Your task to perform on an android device: Go to notification settings Image 0: 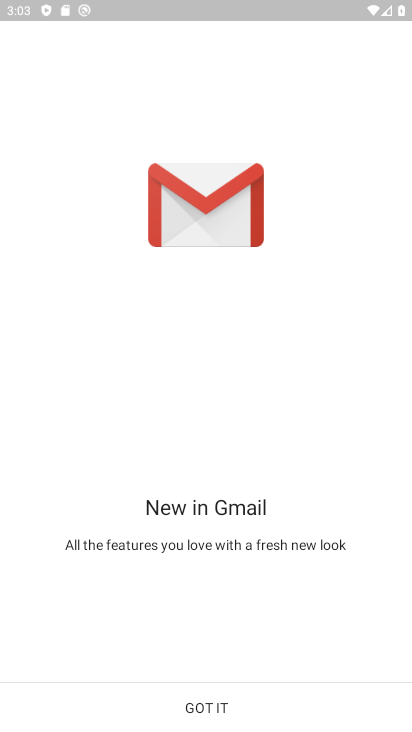
Step 0: click (221, 698)
Your task to perform on an android device: Go to notification settings Image 1: 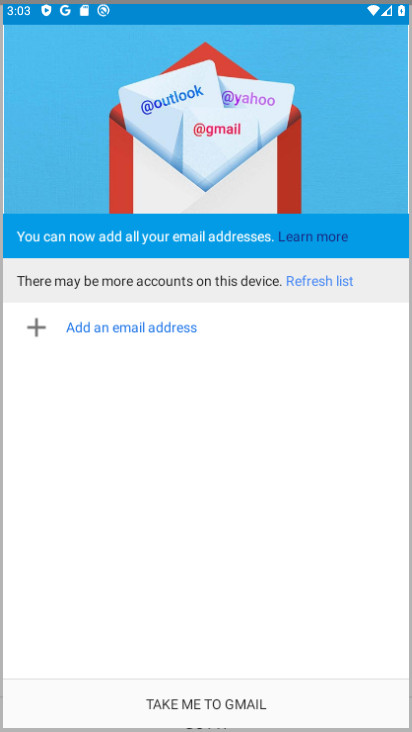
Step 1: click (192, 704)
Your task to perform on an android device: Go to notification settings Image 2: 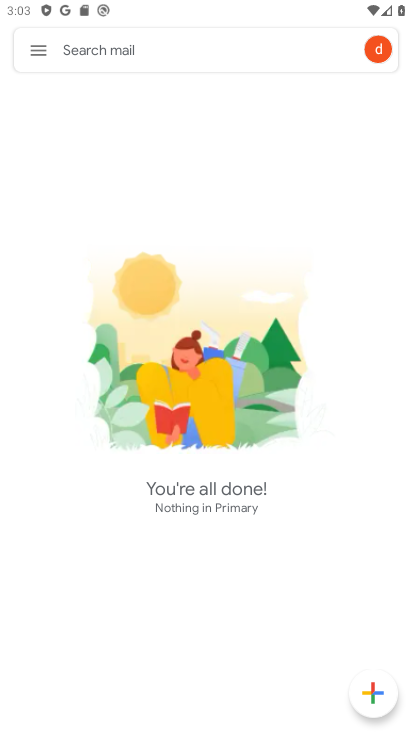
Step 2: click (32, 56)
Your task to perform on an android device: Go to notification settings Image 3: 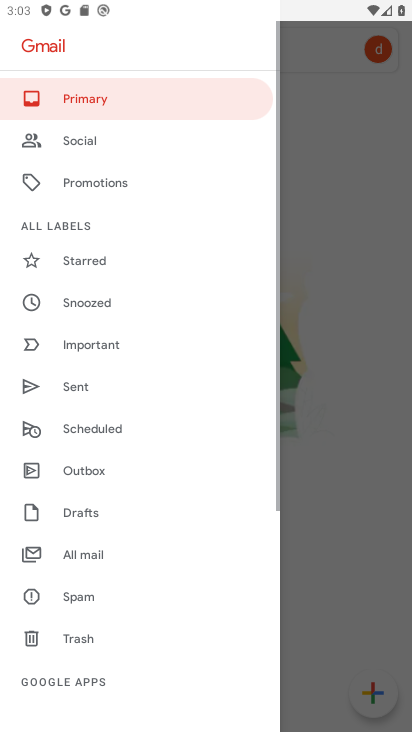
Step 3: press back button
Your task to perform on an android device: Go to notification settings Image 4: 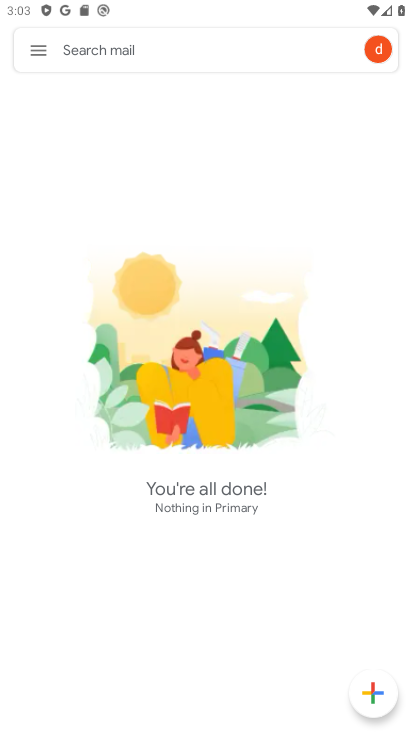
Step 4: press back button
Your task to perform on an android device: Go to notification settings Image 5: 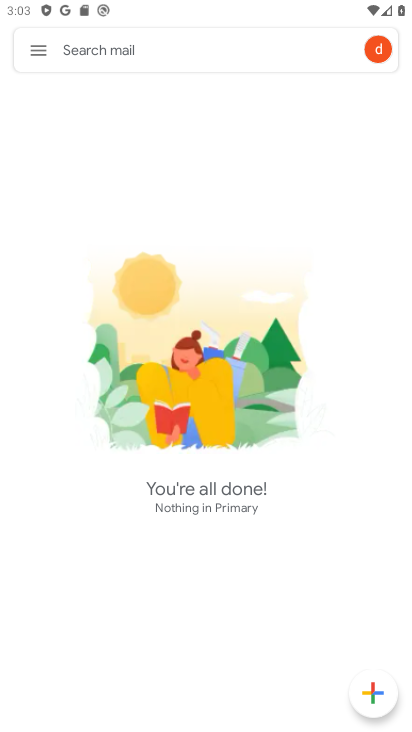
Step 5: press home button
Your task to perform on an android device: Go to notification settings Image 6: 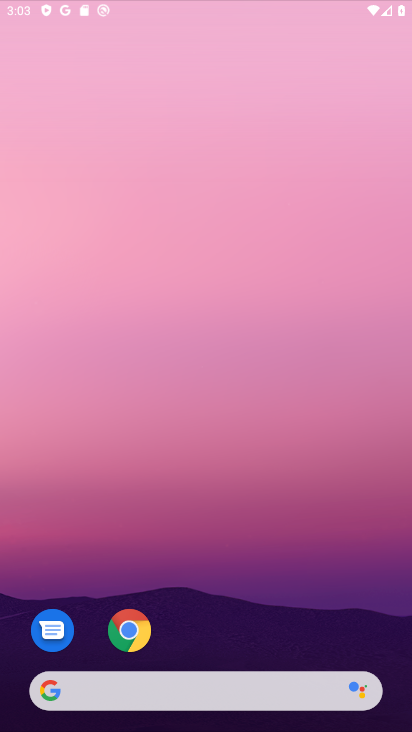
Step 6: press back button
Your task to perform on an android device: Go to notification settings Image 7: 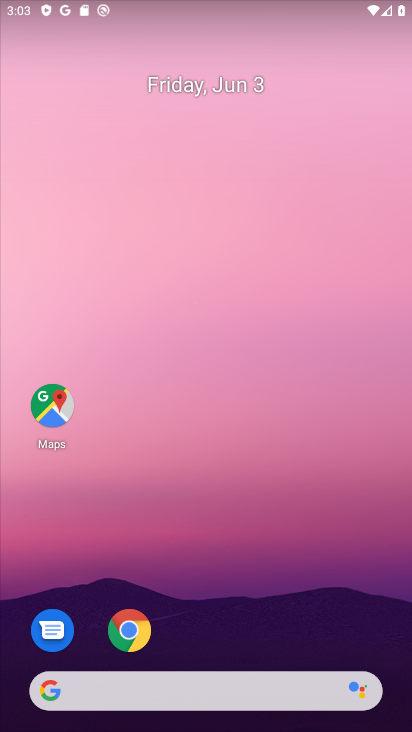
Step 7: drag from (248, 683) to (110, 9)
Your task to perform on an android device: Go to notification settings Image 8: 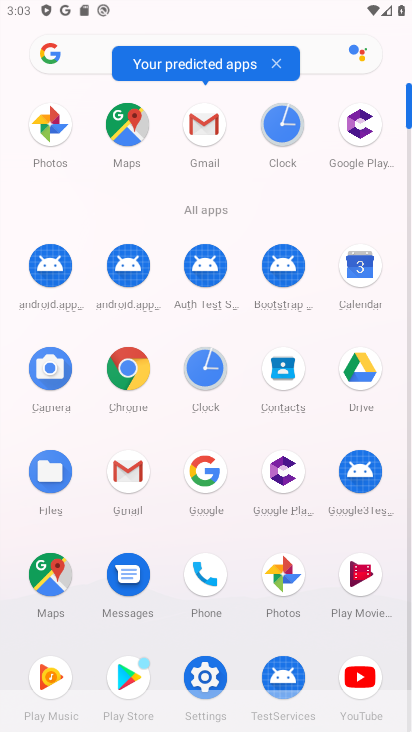
Step 8: click (205, 664)
Your task to perform on an android device: Go to notification settings Image 9: 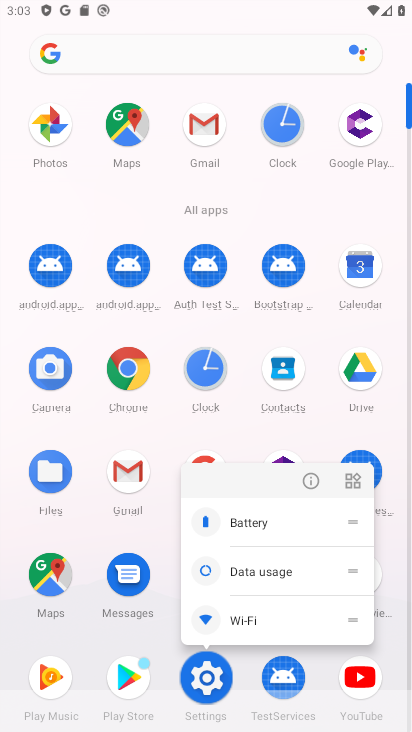
Step 9: click (205, 664)
Your task to perform on an android device: Go to notification settings Image 10: 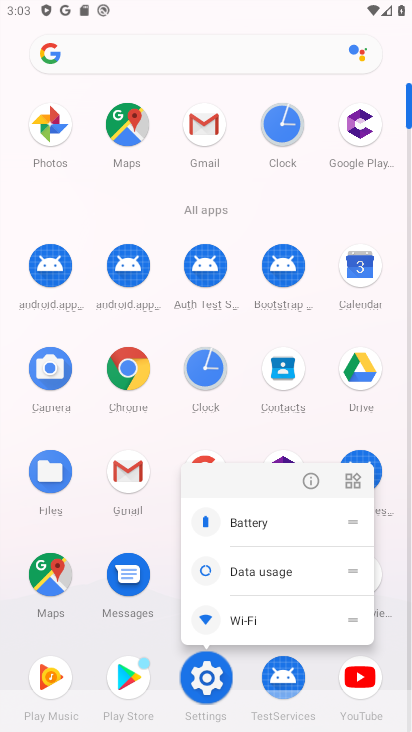
Step 10: click (206, 666)
Your task to perform on an android device: Go to notification settings Image 11: 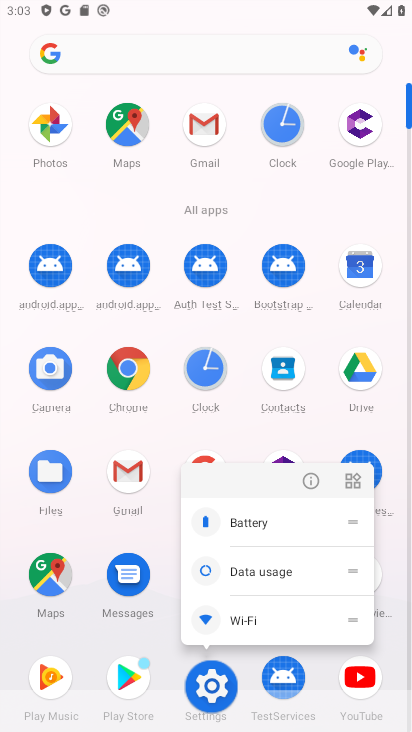
Step 11: click (211, 673)
Your task to perform on an android device: Go to notification settings Image 12: 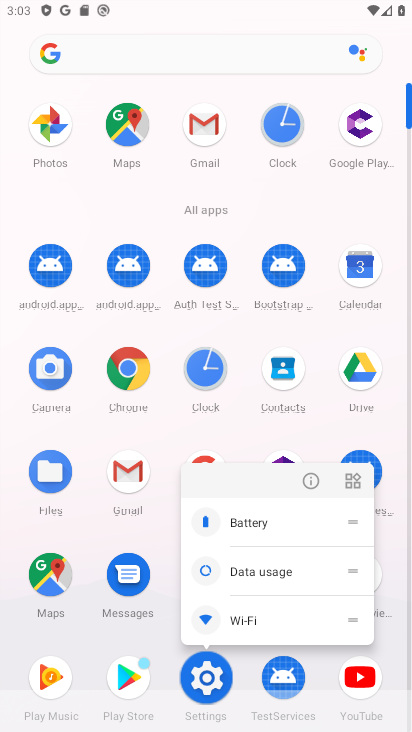
Step 12: click (203, 672)
Your task to perform on an android device: Go to notification settings Image 13: 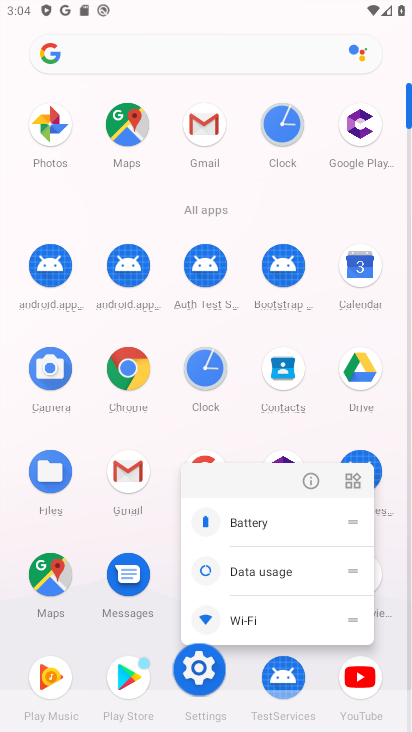
Step 13: click (205, 666)
Your task to perform on an android device: Go to notification settings Image 14: 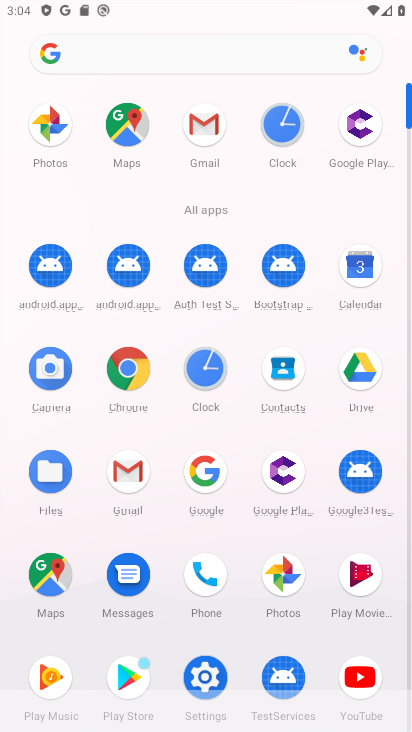
Step 14: click (202, 658)
Your task to perform on an android device: Go to notification settings Image 15: 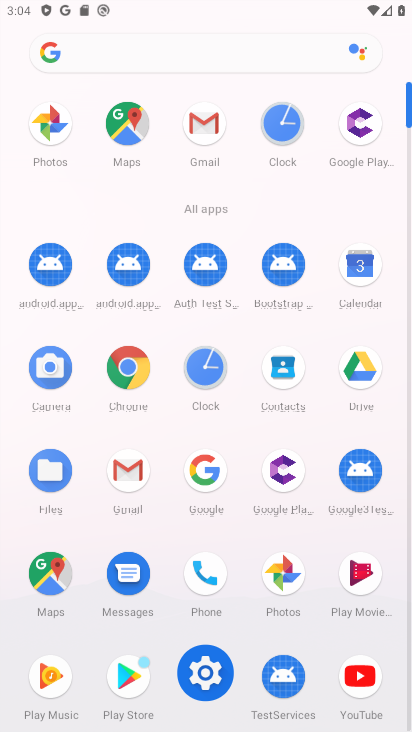
Step 15: click (203, 671)
Your task to perform on an android device: Go to notification settings Image 16: 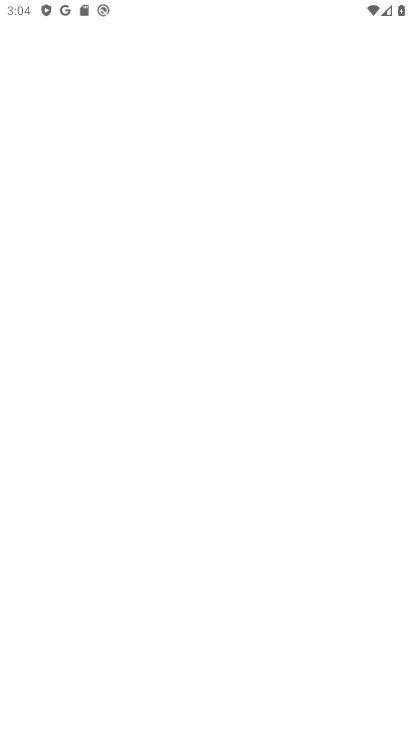
Step 16: click (207, 673)
Your task to perform on an android device: Go to notification settings Image 17: 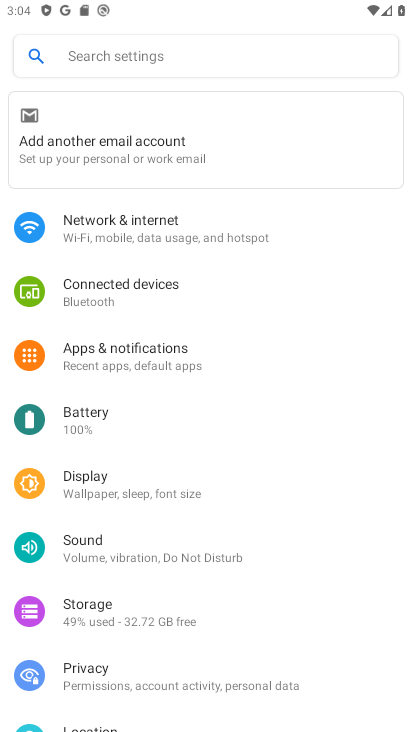
Step 17: click (119, 347)
Your task to perform on an android device: Go to notification settings Image 18: 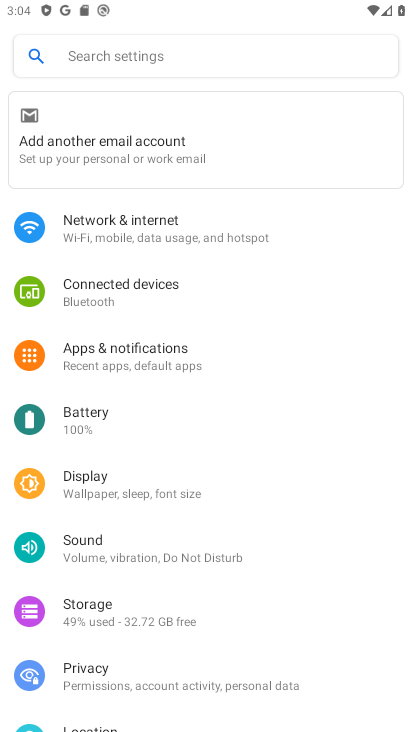
Step 18: click (119, 348)
Your task to perform on an android device: Go to notification settings Image 19: 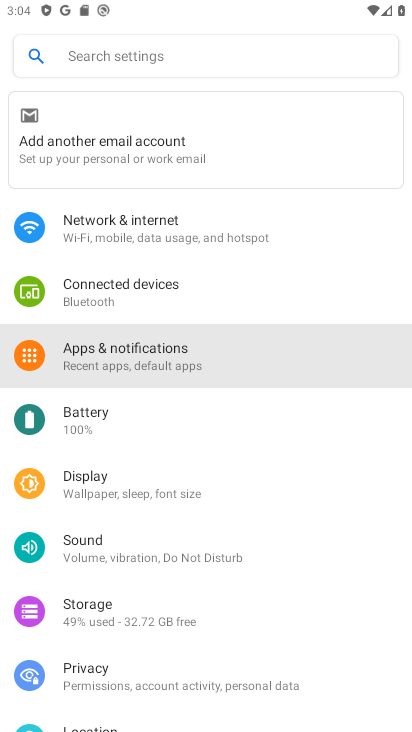
Step 19: click (119, 358)
Your task to perform on an android device: Go to notification settings Image 20: 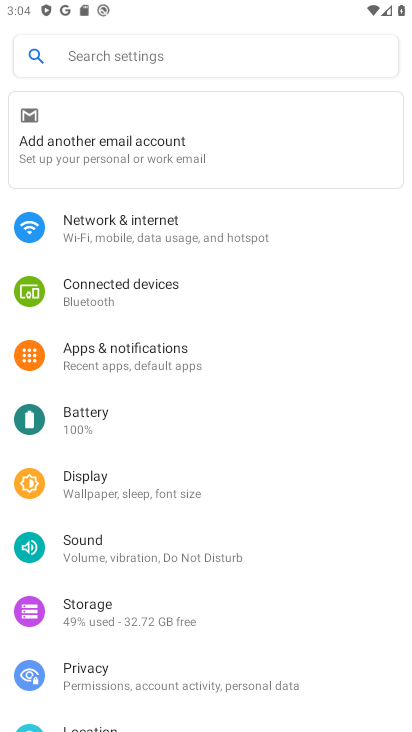
Step 20: click (119, 358)
Your task to perform on an android device: Go to notification settings Image 21: 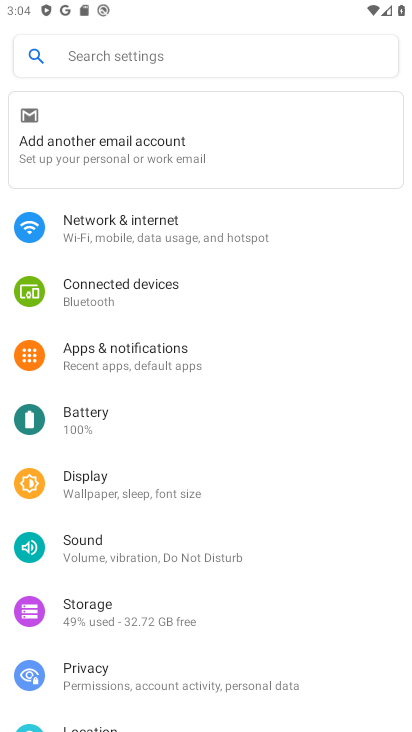
Step 21: click (119, 363)
Your task to perform on an android device: Go to notification settings Image 22: 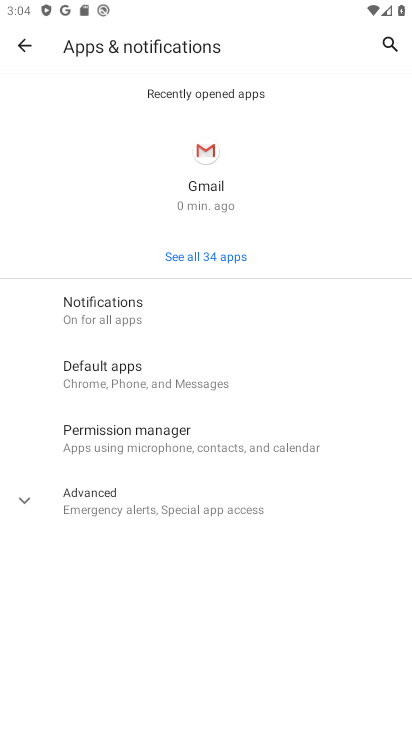
Step 22: click (107, 311)
Your task to perform on an android device: Go to notification settings Image 23: 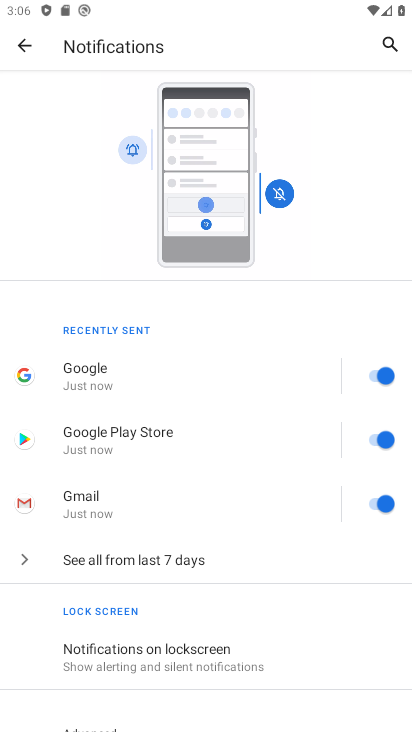
Step 23: press back button
Your task to perform on an android device: Go to notification settings Image 24: 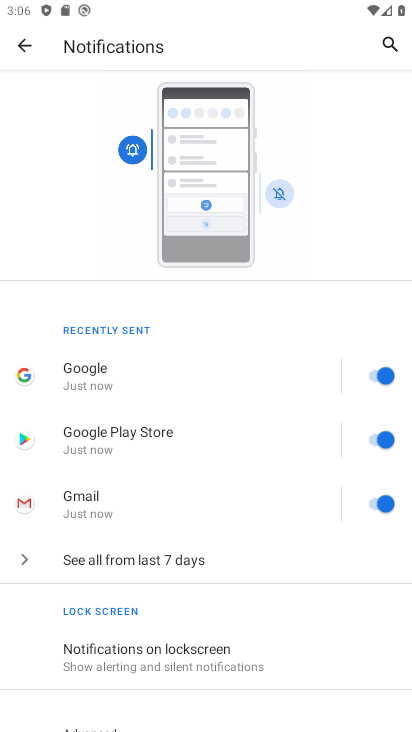
Step 24: press back button
Your task to perform on an android device: Go to notification settings Image 25: 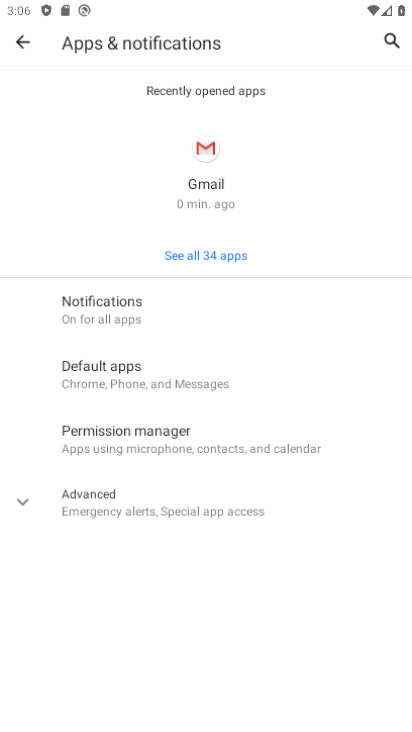
Step 25: press back button
Your task to perform on an android device: Go to notification settings Image 26: 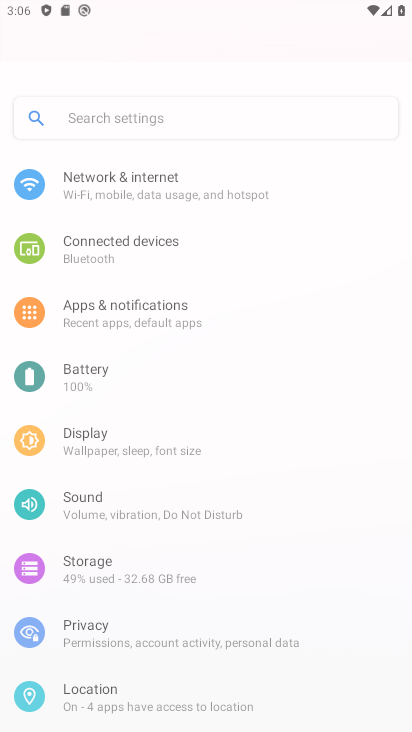
Step 26: click (21, 46)
Your task to perform on an android device: Go to notification settings Image 27: 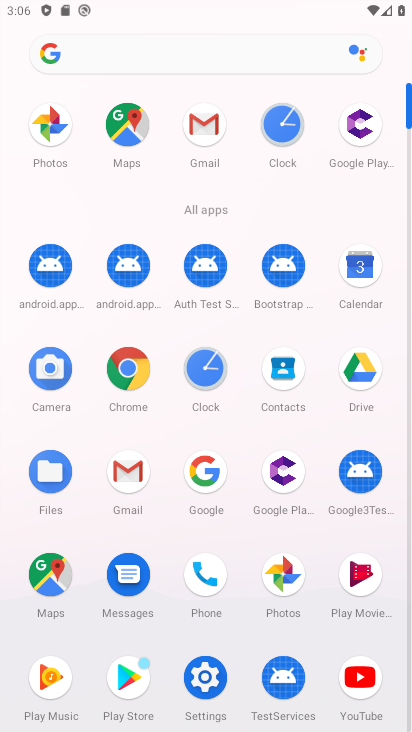
Step 27: click (208, 683)
Your task to perform on an android device: Go to notification settings Image 28: 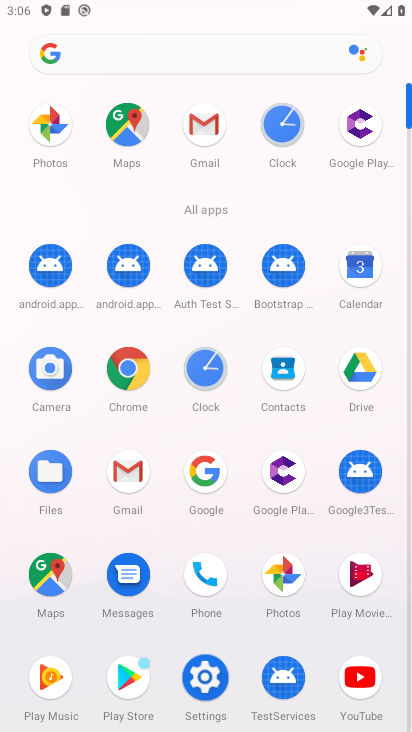
Step 28: drag from (209, 682) to (177, 695)
Your task to perform on an android device: Go to notification settings Image 29: 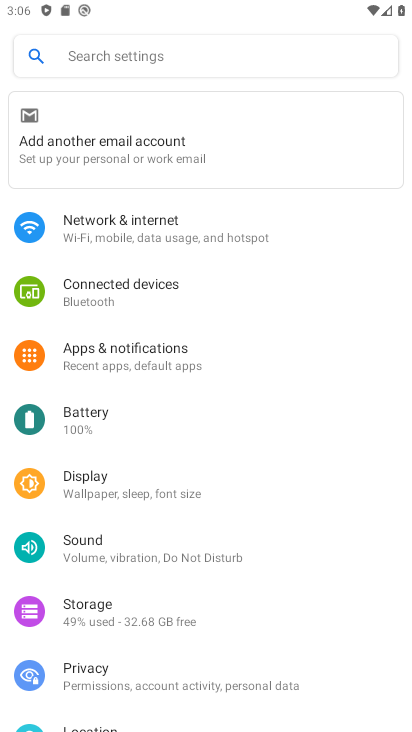
Step 29: click (100, 348)
Your task to perform on an android device: Go to notification settings Image 30: 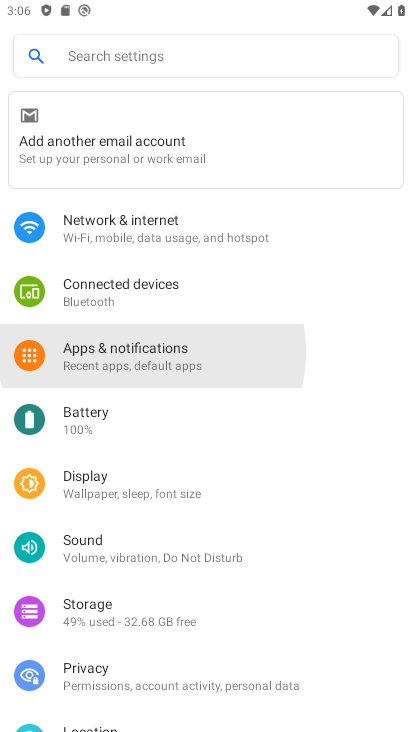
Step 30: click (100, 349)
Your task to perform on an android device: Go to notification settings Image 31: 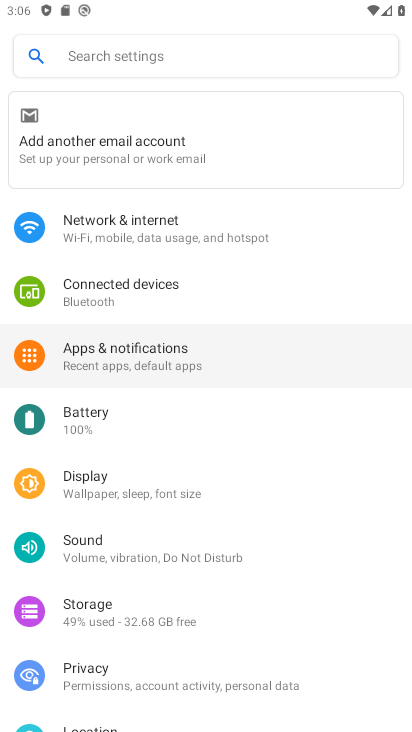
Step 31: click (100, 349)
Your task to perform on an android device: Go to notification settings Image 32: 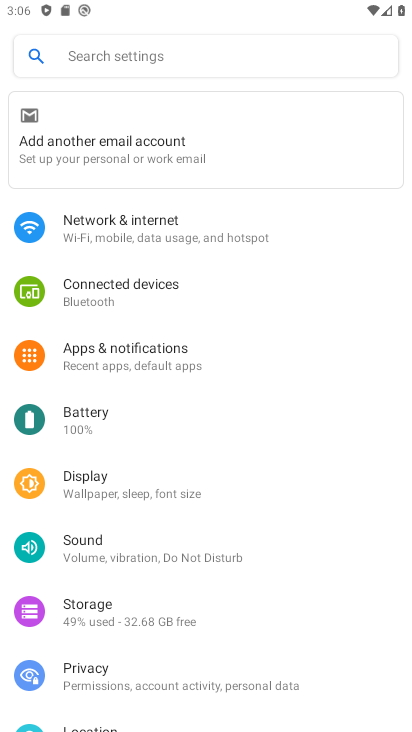
Step 32: click (100, 349)
Your task to perform on an android device: Go to notification settings Image 33: 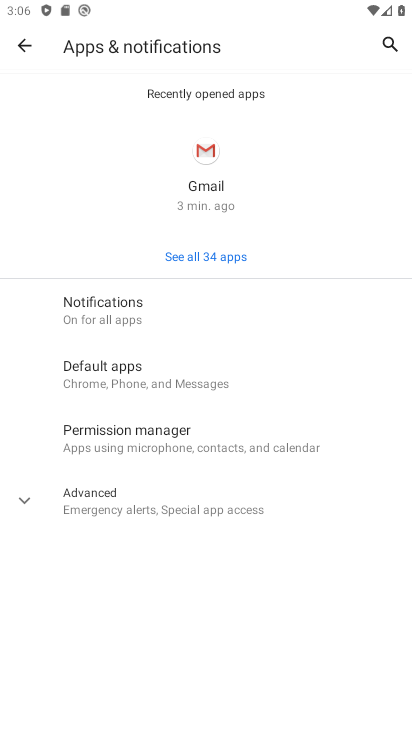
Step 33: click (96, 315)
Your task to perform on an android device: Go to notification settings Image 34: 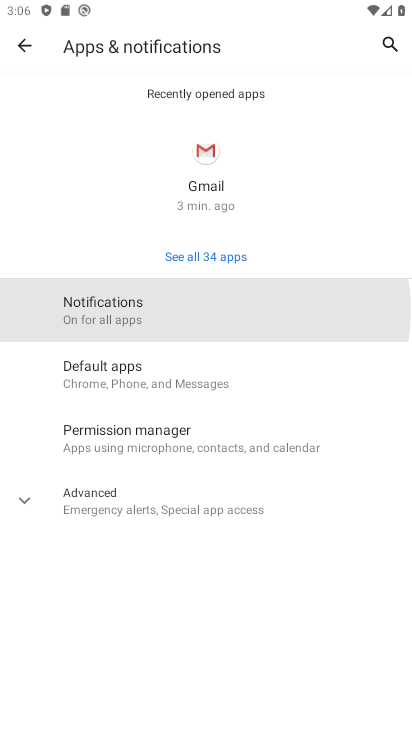
Step 34: click (102, 317)
Your task to perform on an android device: Go to notification settings Image 35: 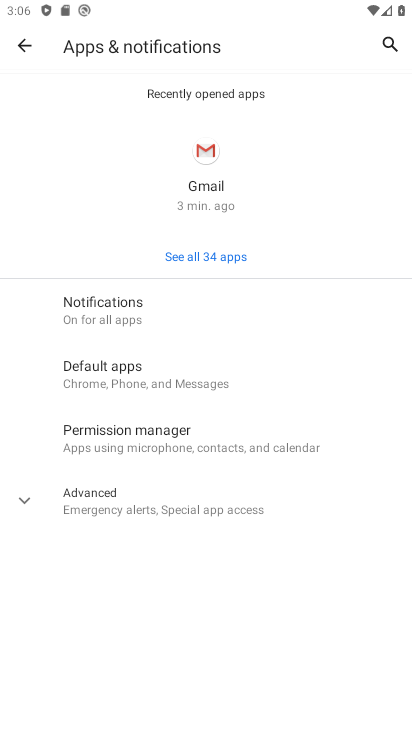
Step 35: click (102, 317)
Your task to perform on an android device: Go to notification settings Image 36: 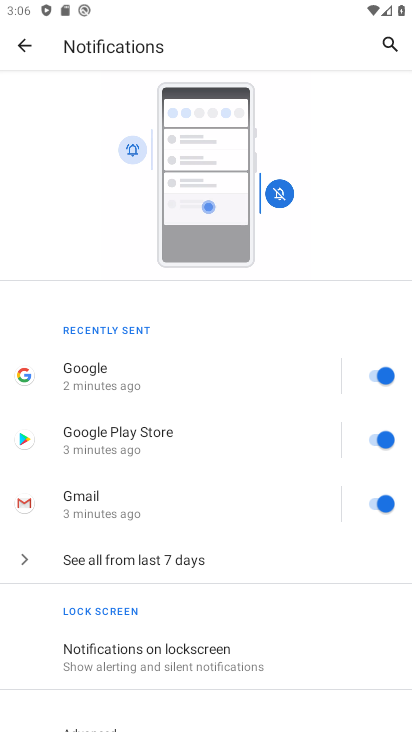
Step 36: click (184, 223)
Your task to perform on an android device: Go to notification settings Image 37: 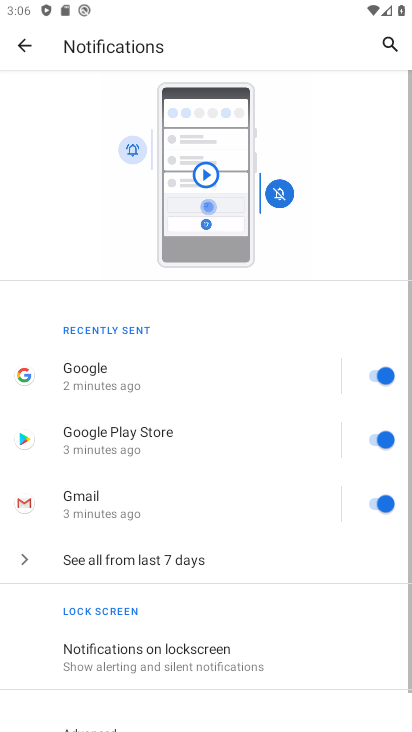
Step 37: task complete